Your task to perform on an android device: toggle airplane mode Image 0: 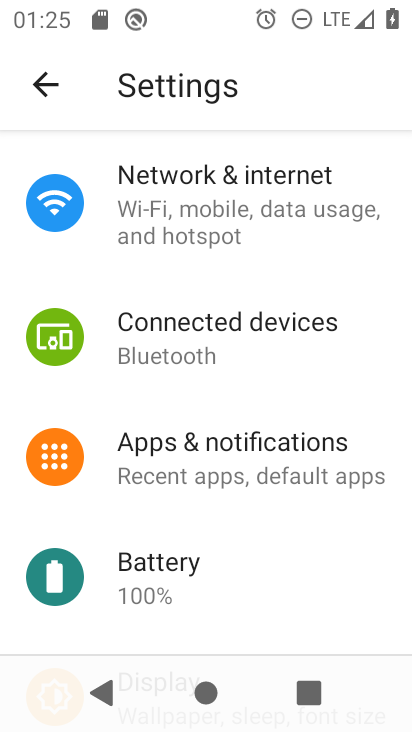
Step 0: click (191, 202)
Your task to perform on an android device: toggle airplane mode Image 1: 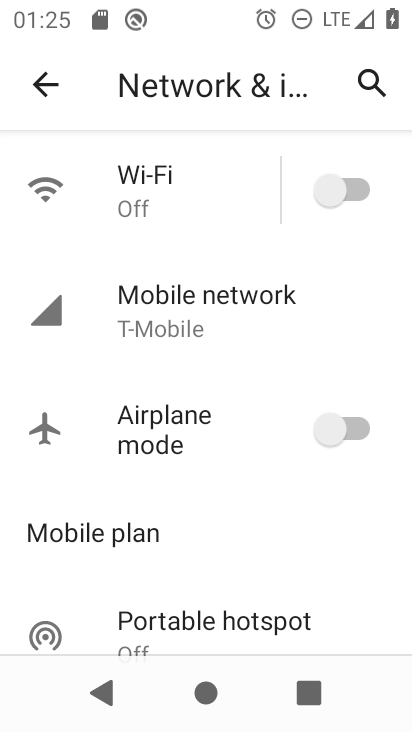
Step 1: click (358, 432)
Your task to perform on an android device: toggle airplane mode Image 2: 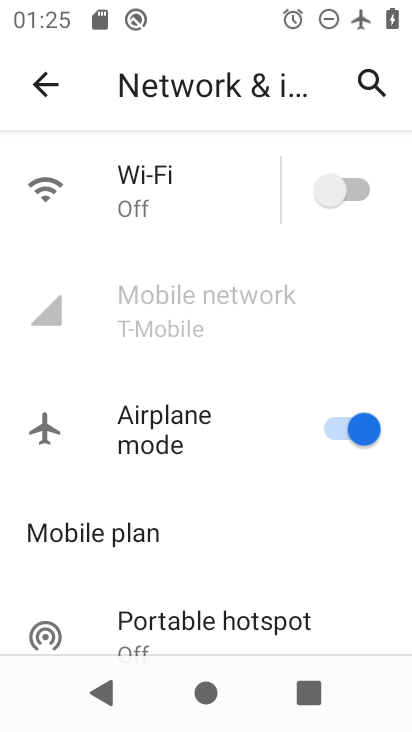
Step 2: task complete